Your task to perform on an android device: turn off wifi Image 0: 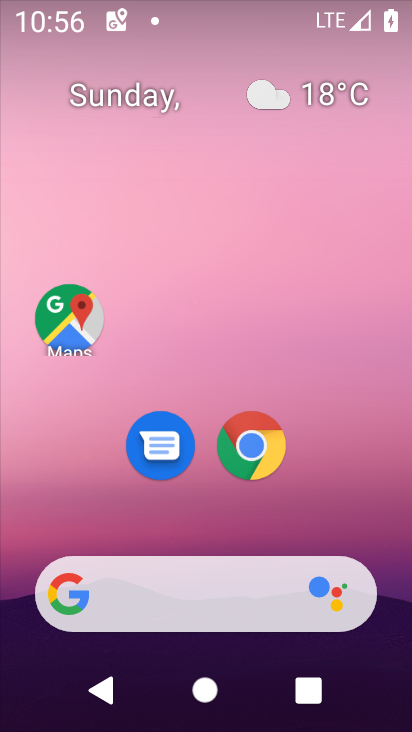
Step 0: drag from (165, 13) to (182, 540)
Your task to perform on an android device: turn off wifi Image 1: 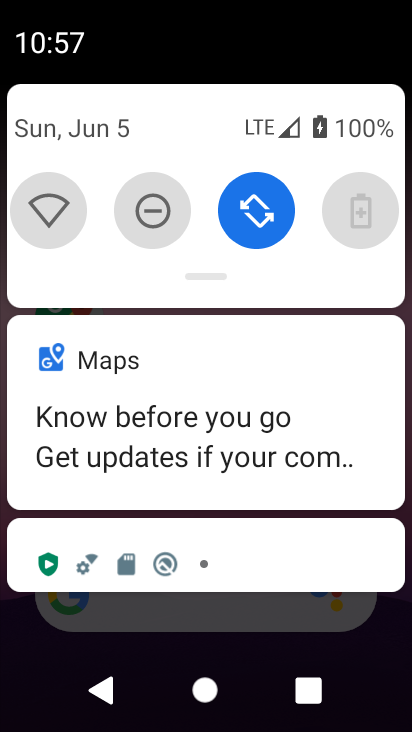
Step 1: task complete